Your task to perform on an android device: move a message to another label in the gmail app Image 0: 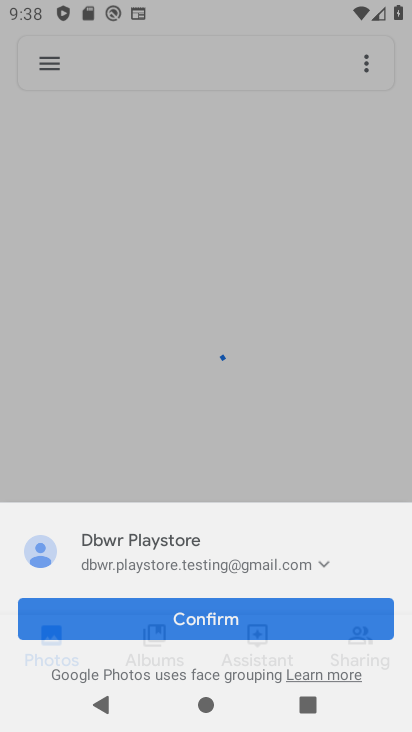
Step 0: press back button
Your task to perform on an android device: move a message to another label in the gmail app Image 1: 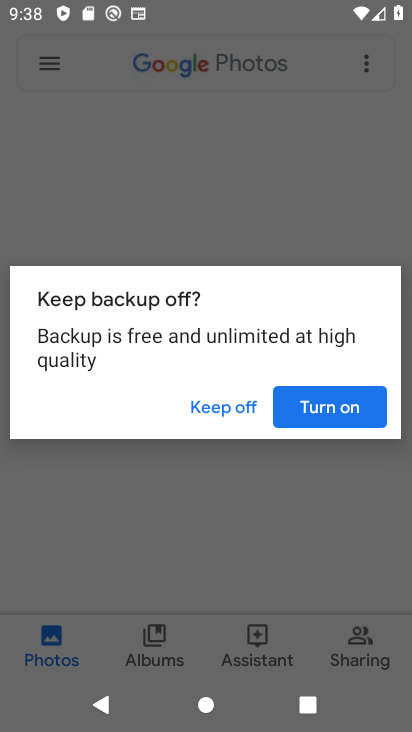
Step 1: press home button
Your task to perform on an android device: move a message to another label in the gmail app Image 2: 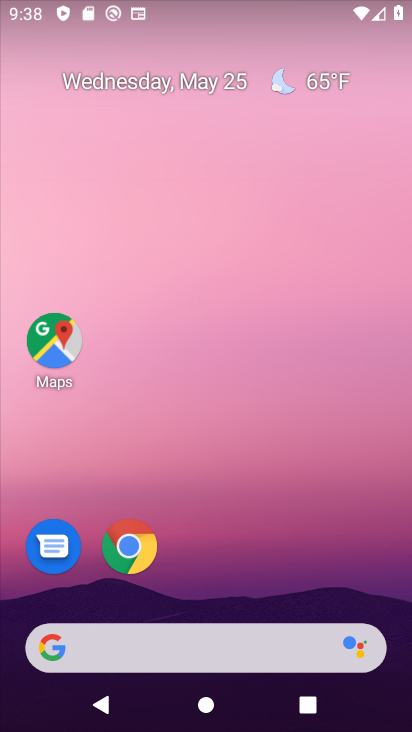
Step 2: drag from (232, 567) to (153, 12)
Your task to perform on an android device: move a message to another label in the gmail app Image 3: 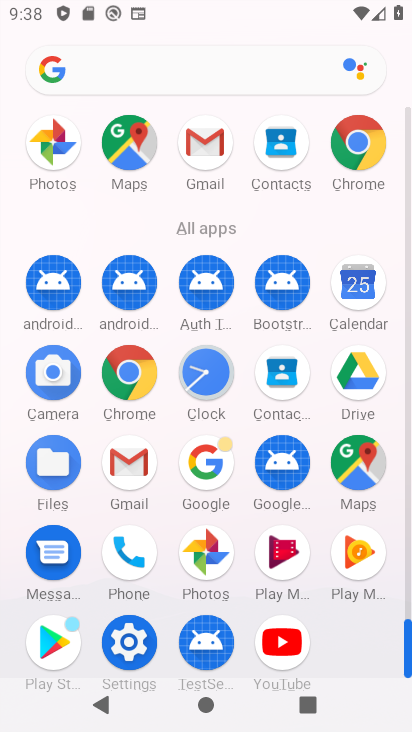
Step 3: drag from (19, 550) to (25, 267)
Your task to perform on an android device: move a message to another label in the gmail app Image 4: 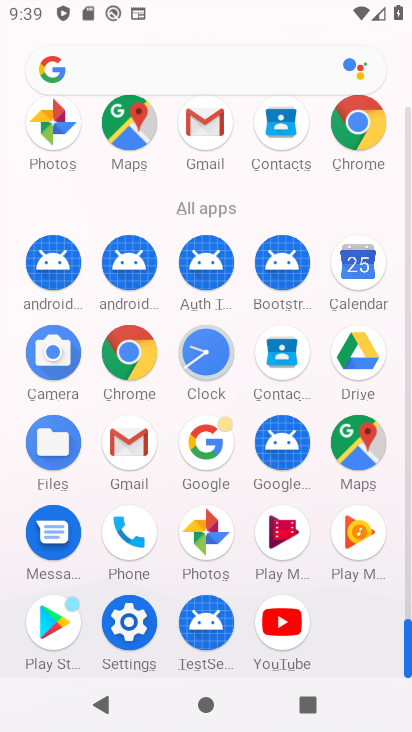
Step 4: drag from (10, 567) to (0, 249)
Your task to perform on an android device: move a message to another label in the gmail app Image 5: 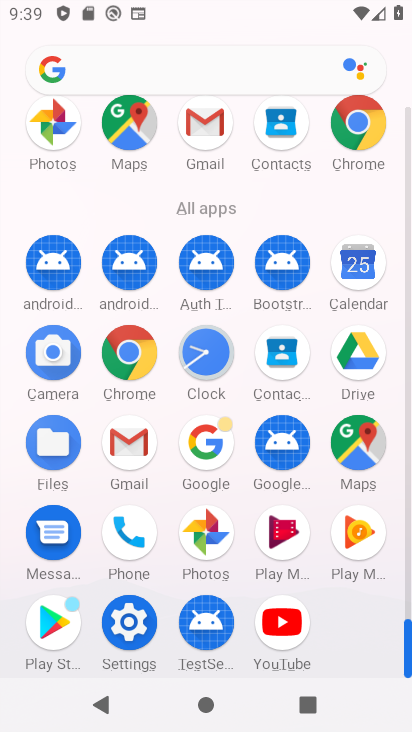
Step 5: click (125, 438)
Your task to perform on an android device: move a message to another label in the gmail app Image 6: 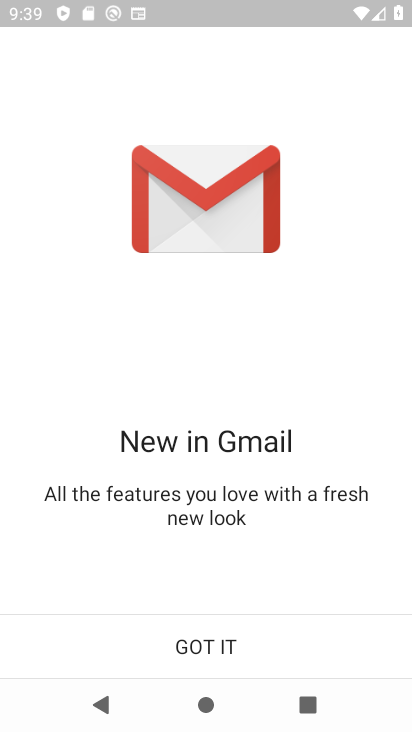
Step 6: click (200, 642)
Your task to perform on an android device: move a message to another label in the gmail app Image 7: 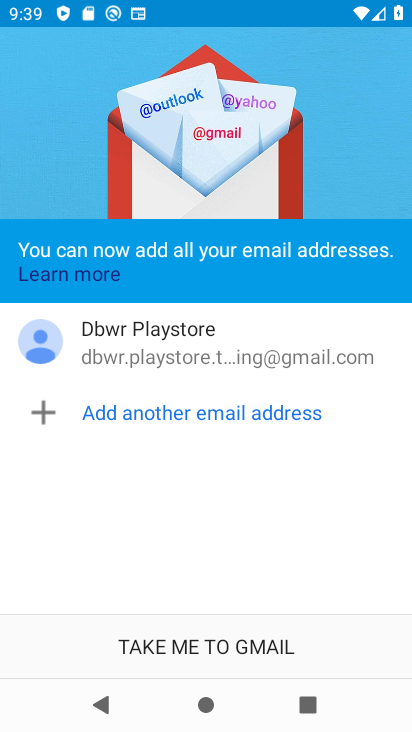
Step 7: click (200, 642)
Your task to perform on an android device: move a message to another label in the gmail app Image 8: 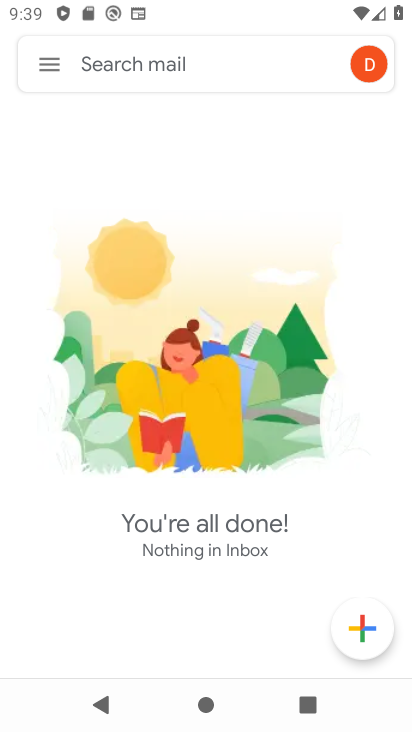
Step 8: click (54, 41)
Your task to perform on an android device: move a message to another label in the gmail app Image 9: 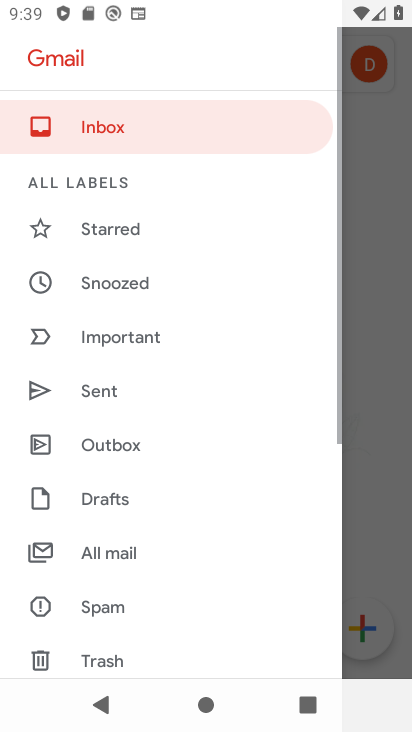
Step 9: drag from (182, 254) to (195, 581)
Your task to perform on an android device: move a message to another label in the gmail app Image 10: 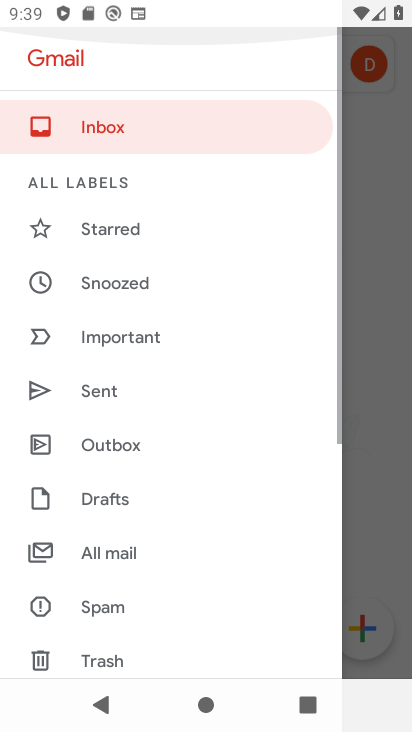
Step 10: drag from (195, 581) to (218, 191)
Your task to perform on an android device: move a message to another label in the gmail app Image 11: 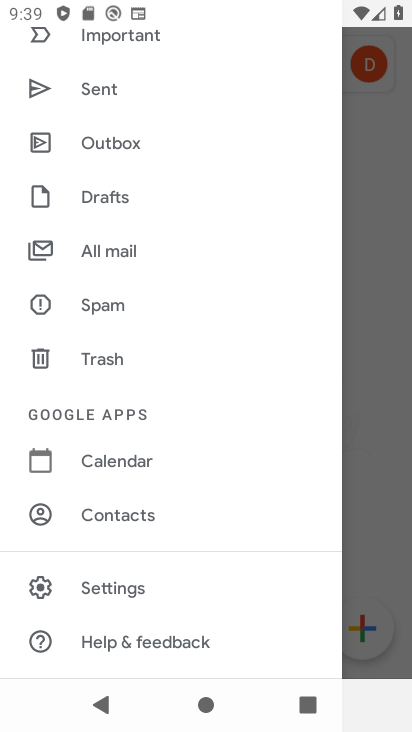
Step 11: click (138, 248)
Your task to perform on an android device: move a message to another label in the gmail app Image 12: 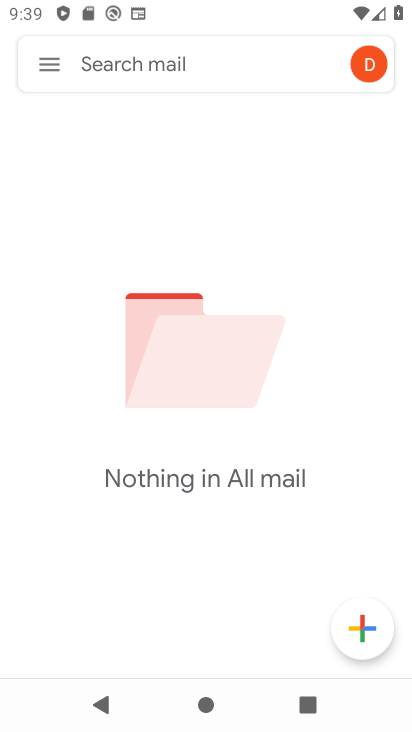
Step 12: click (40, 54)
Your task to perform on an android device: move a message to another label in the gmail app Image 13: 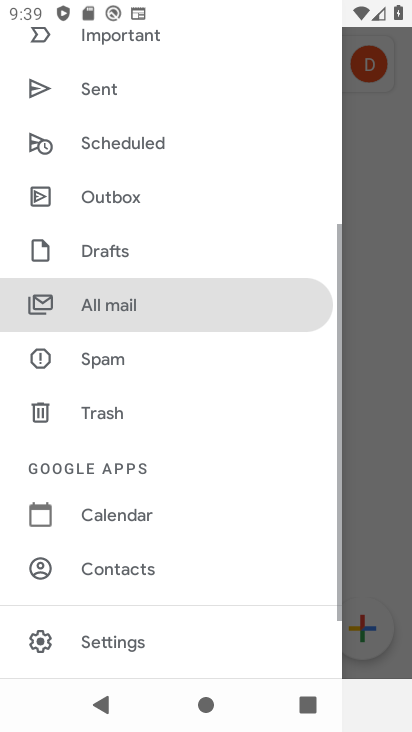
Step 13: drag from (221, 255) to (229, 609)
Your task to perform on an android device: move a message to another label in the gmail app Image 14: 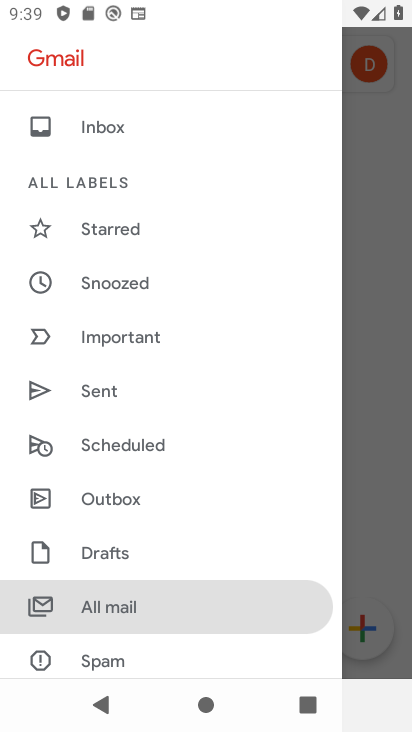
Step 14: click (122, 120)
Your task to perform on an android device: move a message to another label in the gmail app Image 15: 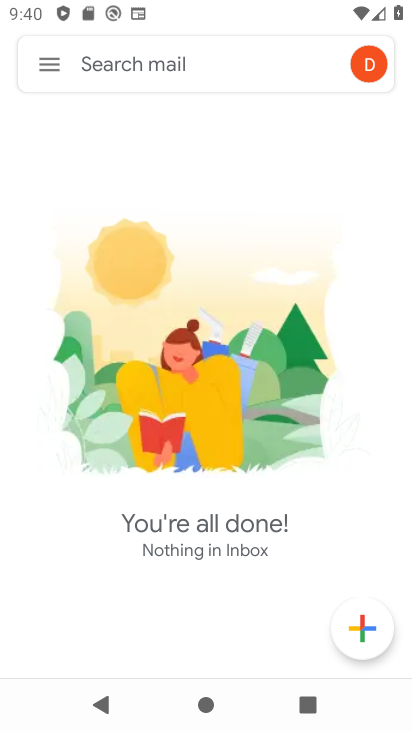
Step 15: click (42, 67)
Your task to perform on an android device: move a message to another label in the gmail app Image 16: 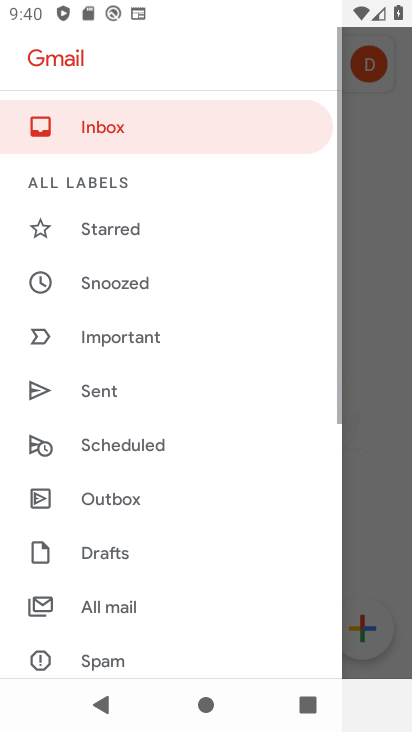
Step 16: drag from (215, 292) to (206, 597)
Your task to perform on an android device: move a message to another label in the gmail app Image 17: 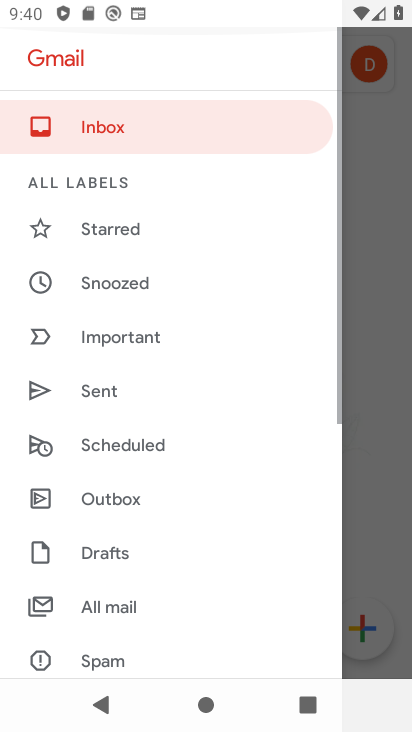
Step 17: click (142, 604)
Your task to perform on an android device: move a message to another label in the gmail app Image 18: 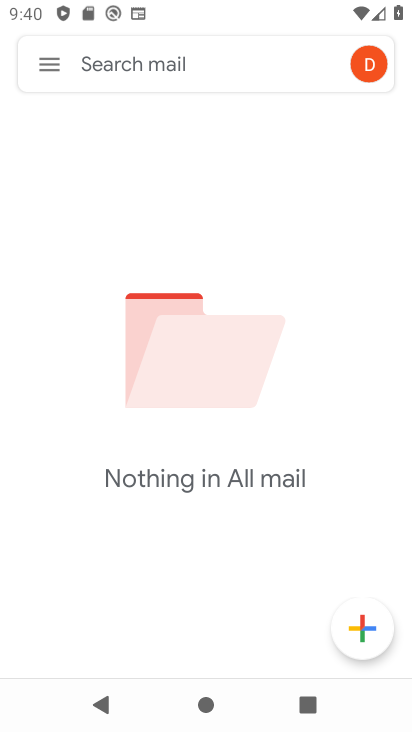
Step 18: task complete